Your task to perform on an android device: Go to notification settings Image 0: 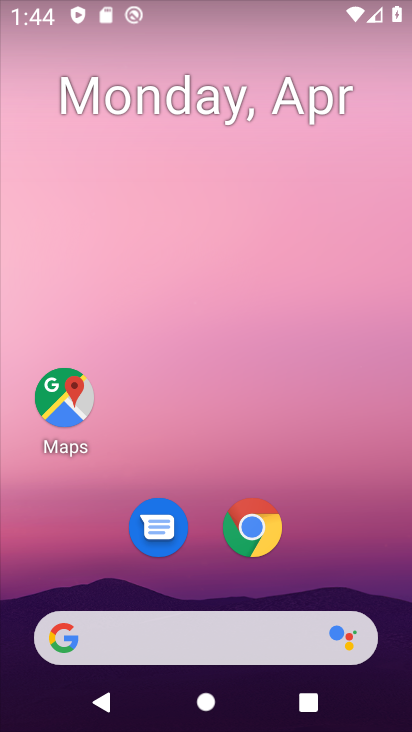
Step 0: drag from (362, 423) to (313, 49)
Your task to perform on an android device: Go to notification settings Image 1: 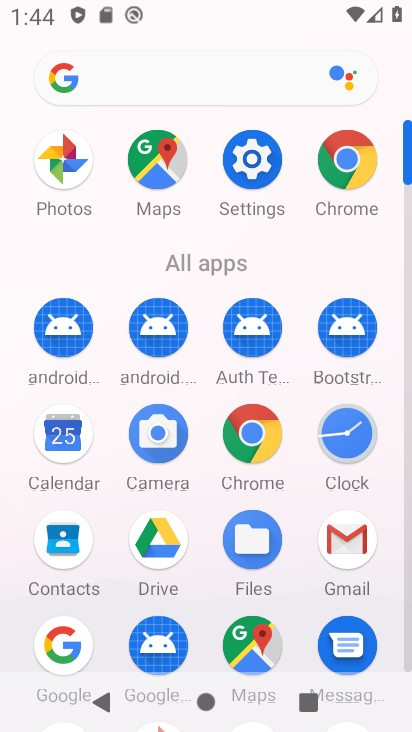
Step 1: drag from (13, 523) to (23, 202)
Your task to perform on an android device: Go to notification settings Image 2: 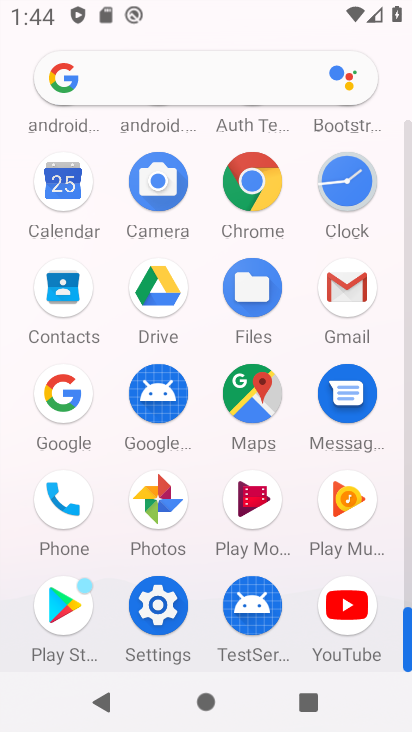
Step 2: click (154, 605)
Your task to perform on an android device: Go to notification settings Image 3: 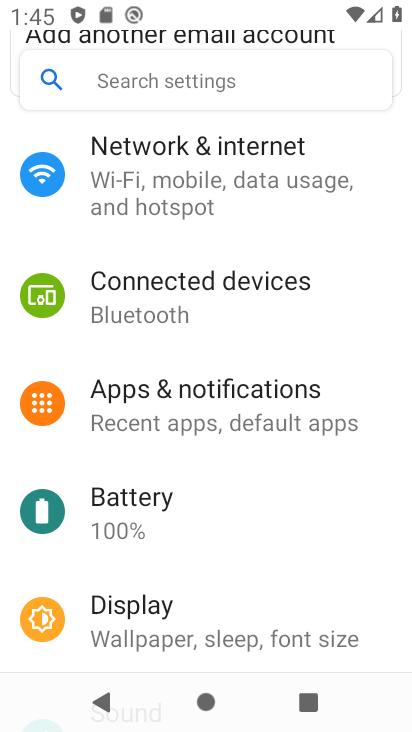
Step 3: click (245, 397)
Your task to perform on an android device: Go to notification settings Image 4: 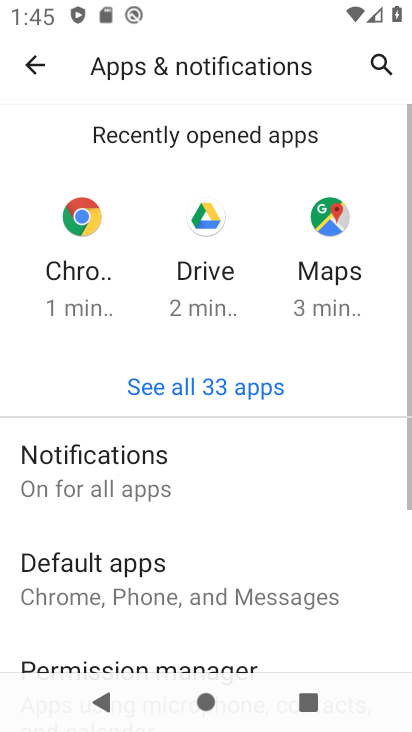
Step 4: click (209, 490)
Your task to perform on an android device: Go to notification settings Image 5: 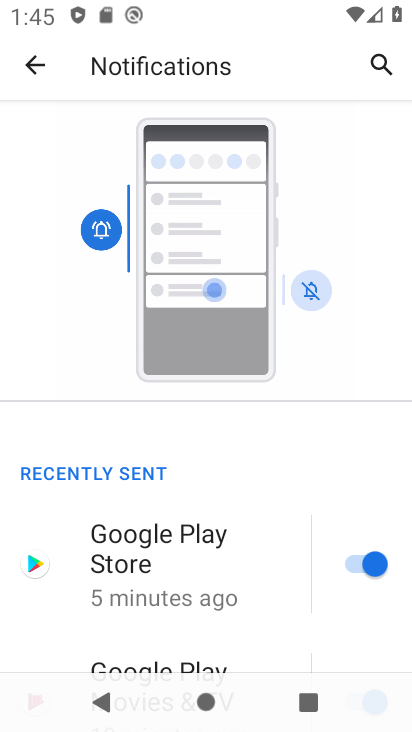
Step 5: drag from (205, 572) to (237, 209)
Your task to perform on an android device: Go to notification settings Image 6: 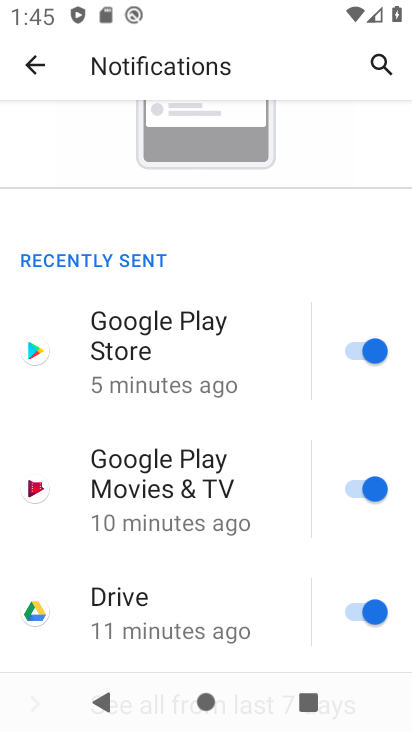
Step 6: drag from (233, 416) to (242, 257)
Your task to perform on an android device: Go to notification settings Image 7: 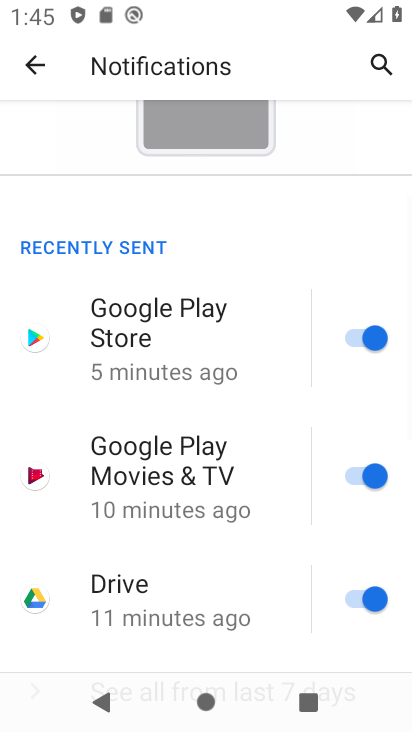
Step 7: drag from (240, 548) to (310, 108)
Your task to perform on an android device: Go to notification settings Image 8: 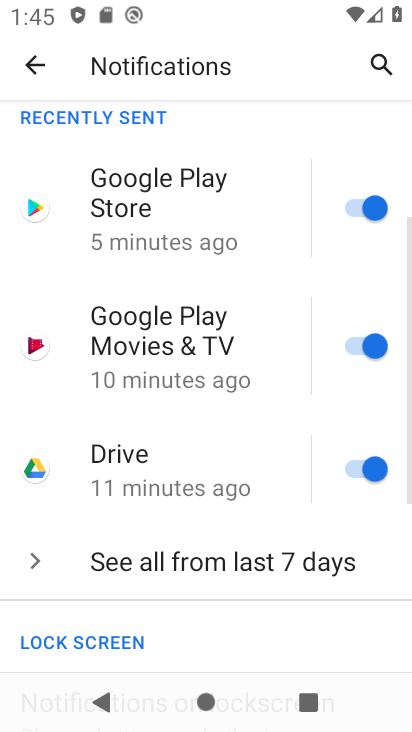
Step 8: drag from (241, 537) to (242, 127)
Your task to perform on an android device: Go to notification settings Image 9: 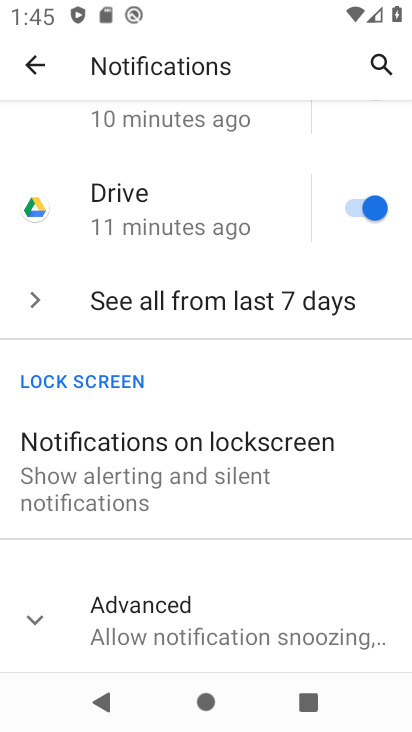
Step 9: drag from (193, 431) to (195, 180)
Your task to perform on an android device: Go to notification settings Image 10: 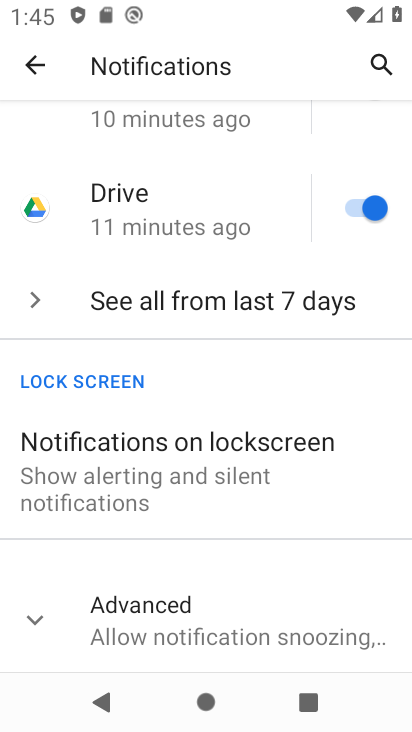
Step 10: click (56, 607)
Your task to perform on an android device: Go to notification settings Image 11: 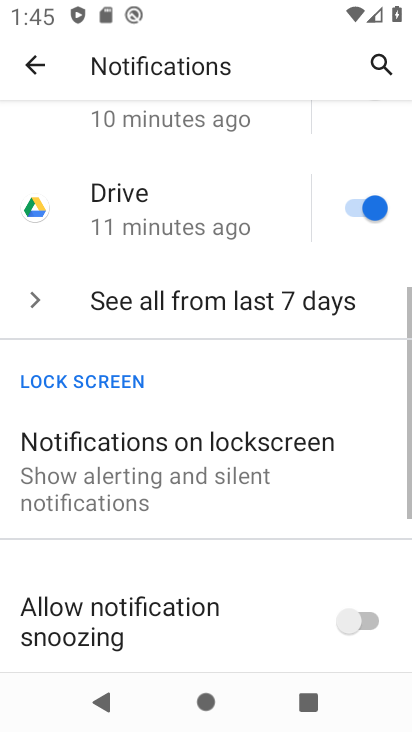
Step 11: task complete